Your task to perform on an android device: turn off data saver in the chrome app Image 0: 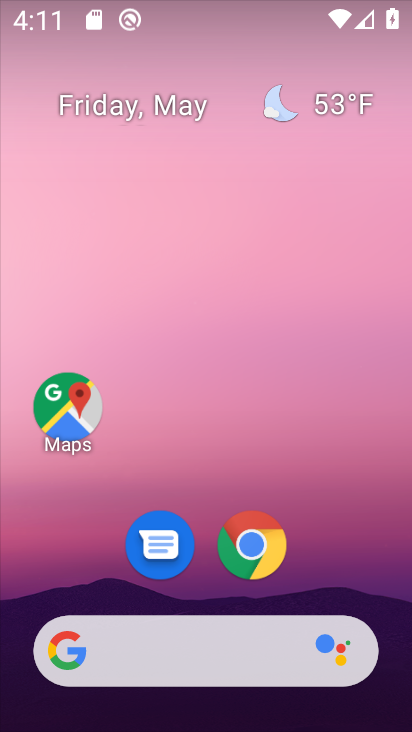
Step 0: drag from (379, 586) to (382, 174)
Your task to perform on an android device: turn off data saver in the chrome app Image 1: 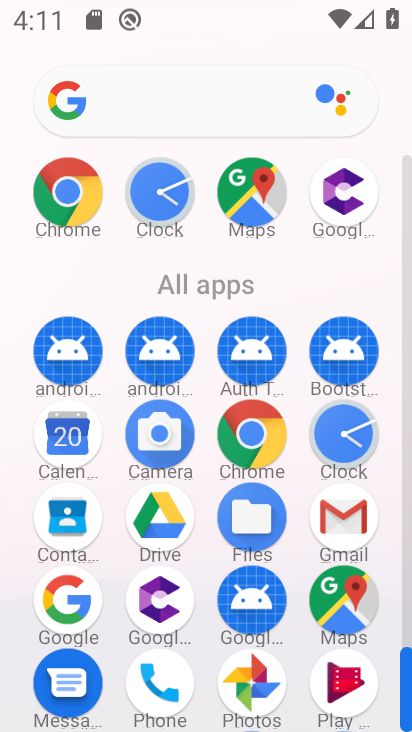
Step 1: click (244, 436)
Your task to perform on an android device: turn off data saver in the chrome app Image 2: 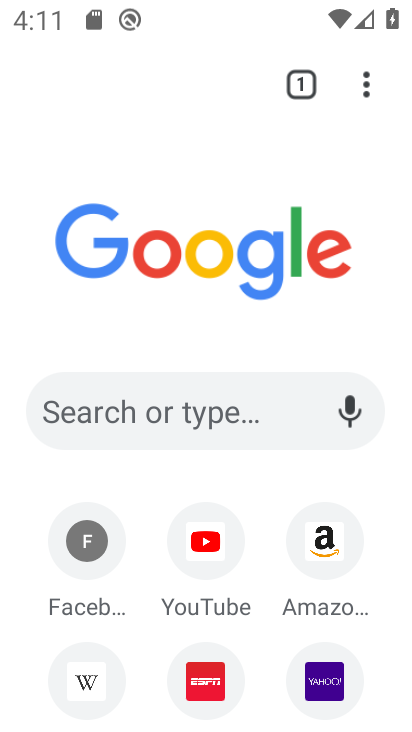
Step 2: click (365, 100)
Your task to perform on an android device: turn off data saver in the chrome app Image 3: 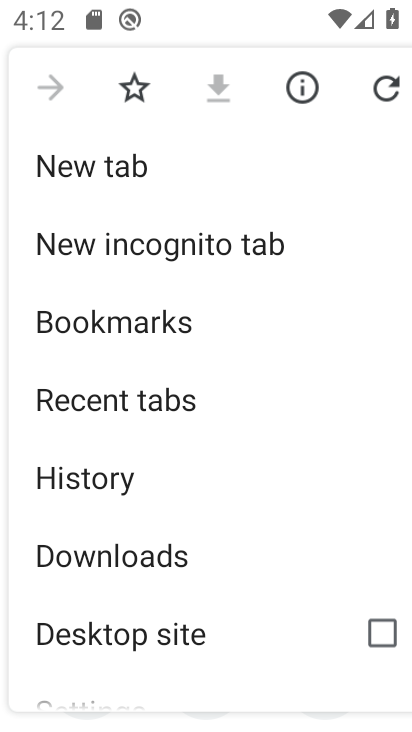
Step 3: drag from (322, 566) to (316, 426)
Your task to perform on an android device: turn off data saver in the chrome app Image 4: 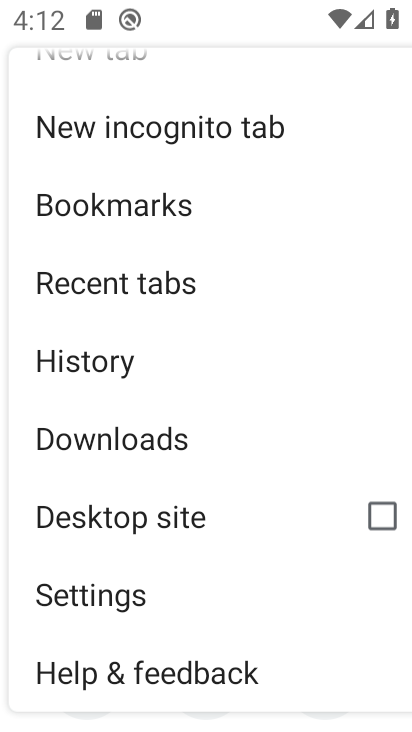
Step 4: drag from (305, 591) to (303, 439)
Your task to perform on an android device: turn off data saver in the chrome app Image 5: 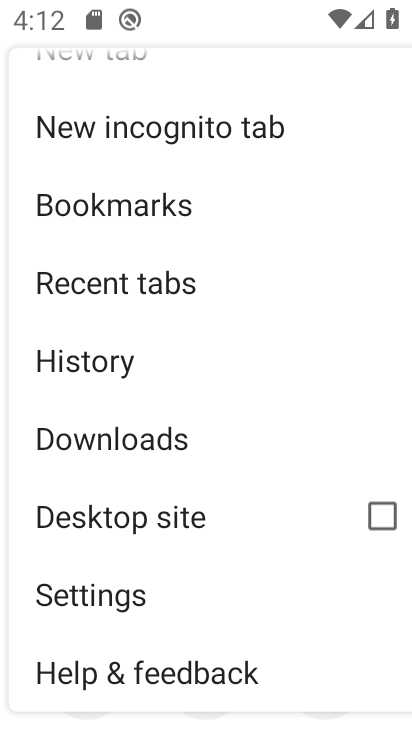
Step 5: click (251, 587)
Your task to perform on an android device: turn off data saver in the chrome app Image 6: 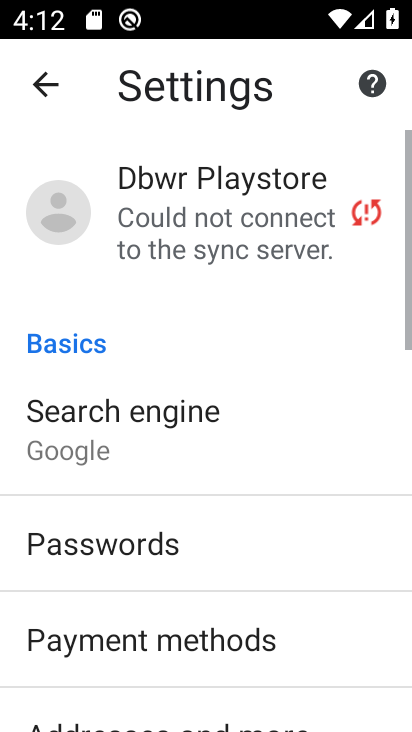
Step 6: drag from (279, 620) to (284, 535)
Your task to perform on an android device: turn off data saver in the chrome app Image 7: 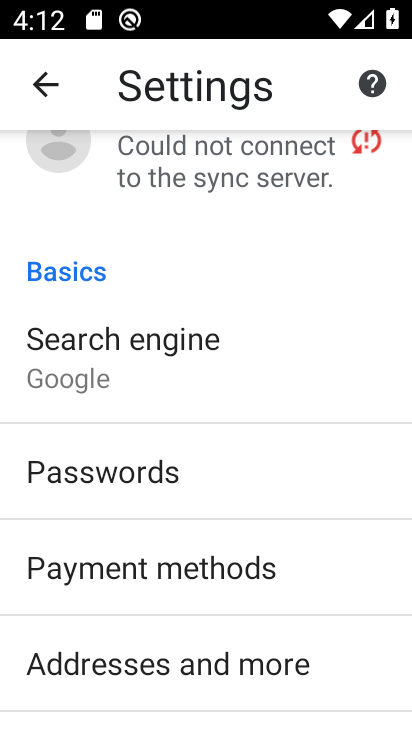
Step 7: drag from (325, 643) to (326, 550)
Your task to perform on an android device: turn off data saver in the chrome app Image 8: 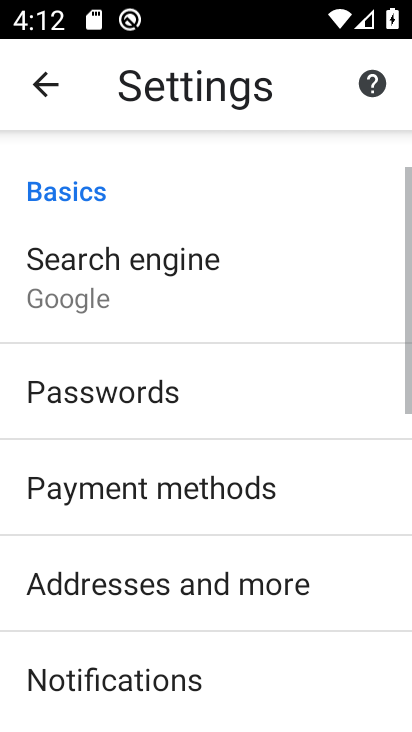
Step 8: drag from (347, 667) to (365, 571)
Your task to perform on an android device: turn off data saver in the chrome app Image 9: 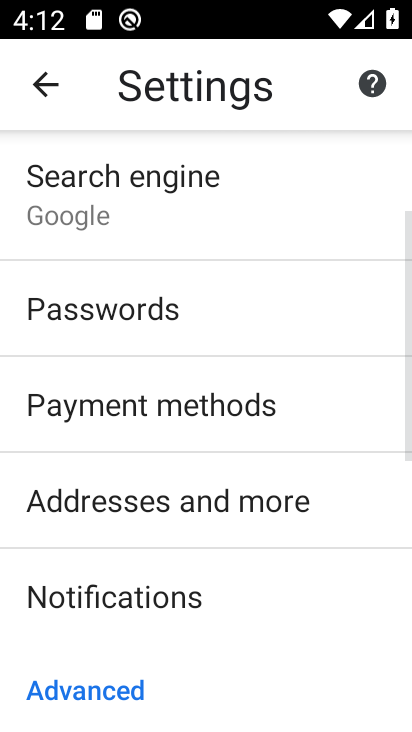
Step 9: drag from (369, 669) to (368, 544)
Your task to perform on an android device: turn off data saver in the chrome app Image 10: 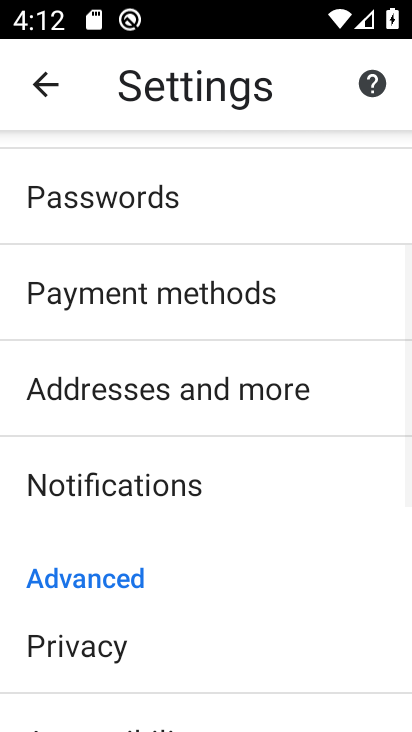
Step 10: drag from (336, 632) to (331, 510)
Your task to perform on an android device: turn off data saver in the chrome app Image 11: 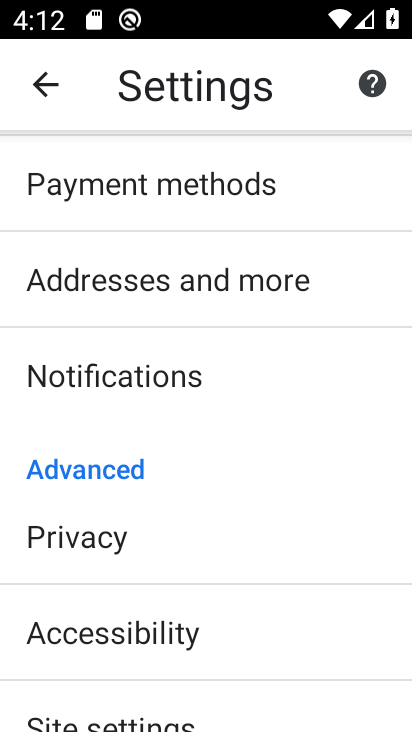
Step 11: drag from (310, 653) to (313, 530)
Your task to perform on an android device: turn off data saver in the chrome app Image 12: 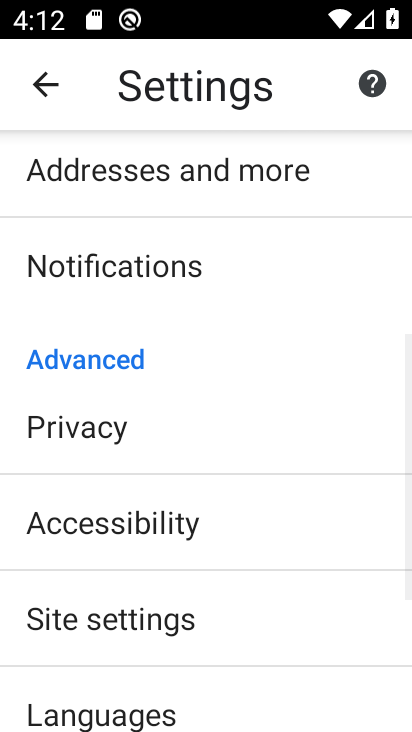
Step 12: drag from (317, 677) to (322, 562)
Your task to perform on an android device: turn off data saver in the chrome app Image 13: 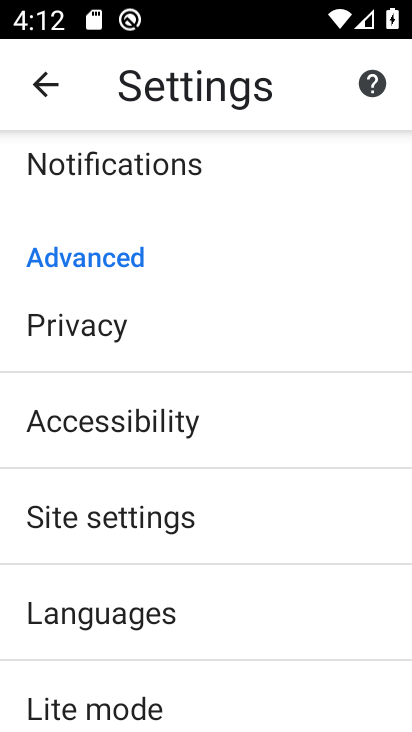
Step 13: drag from (317, 651) to (324, 582)
Your task to perform on an android device: turn off data saver in the chrome app Image 14: 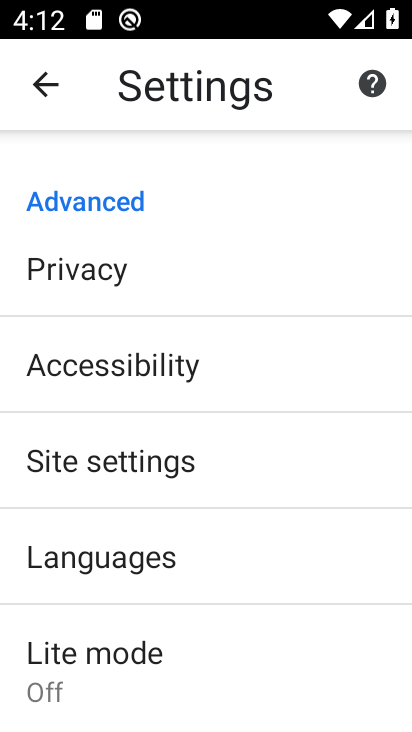
Step 14: click (296, 668)
Your task to perform on an android device: turn off data saver in the chrome app Image 15: 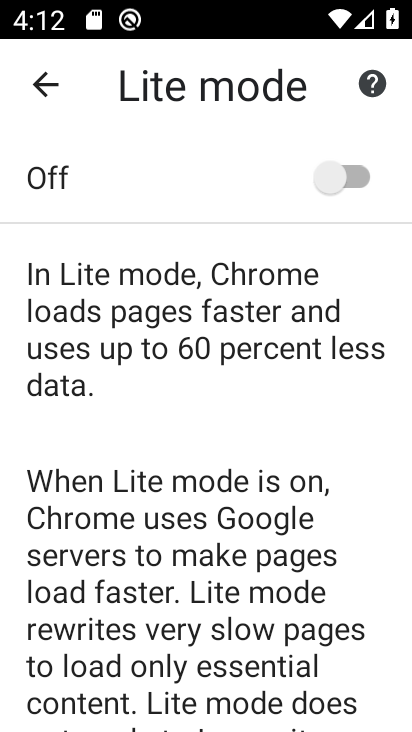
Step 15: task complete